Your task to perform on an android device: turn off location Image 0: 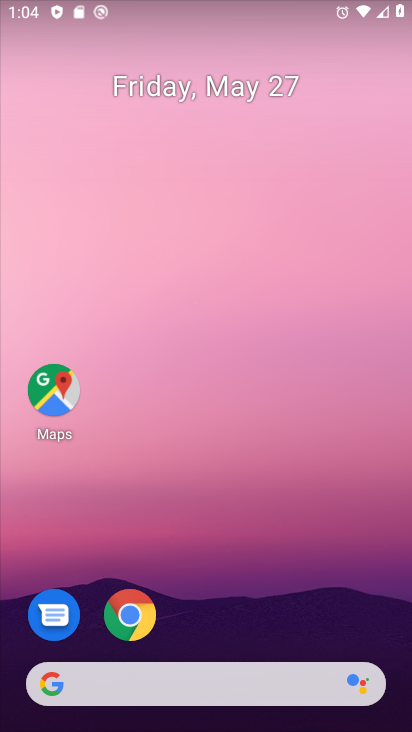
Step 0: press home button
Your task to perform on an android device: turn off location Image 1: 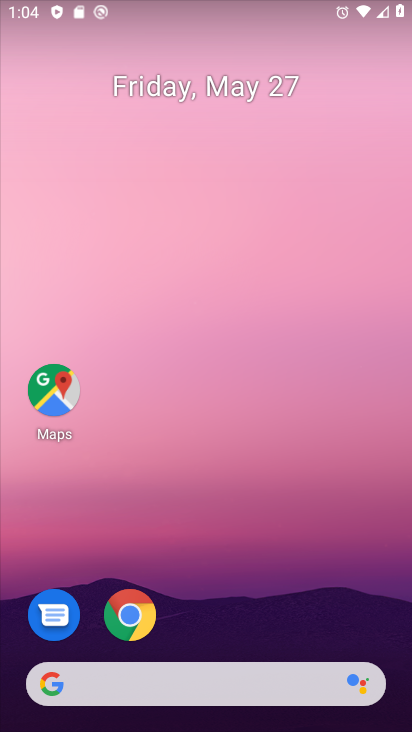
Step 1: drag from (252, 627) to (259, 72)
Your task to perform on an android device: turn off location Image 2: 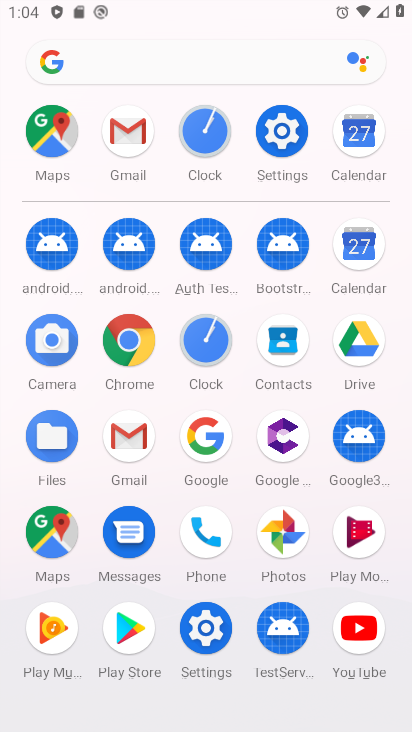
Step 2: click (277, 127)
Your task to perform on an android device: turn off location Image 3: 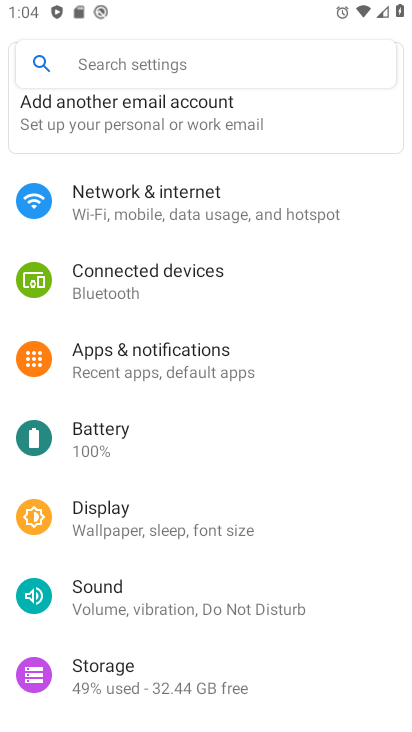
Step 3: drag from (223, 668) to (267, 117)
Your task to perform on an android device: turn off location Image 4: 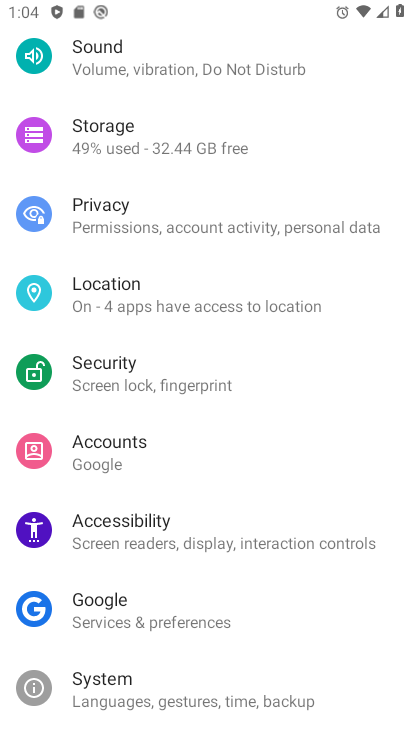
Step 4: click (114, 292)
Your task to perform on an android device: turn off location Image 5: 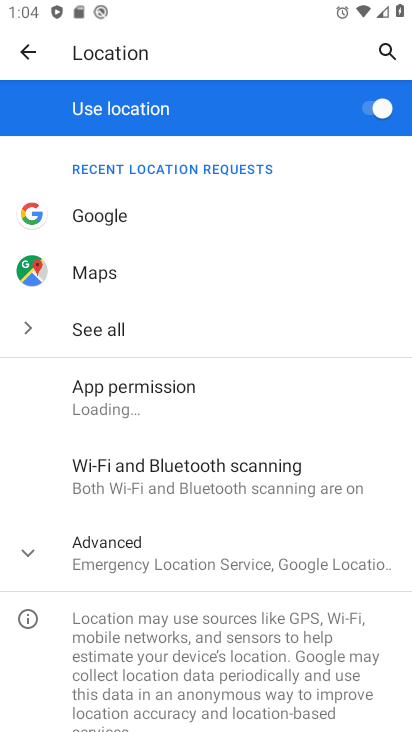
Step 5: click (108, 550)
Your task to perform on an android device: turn off location Image 6: 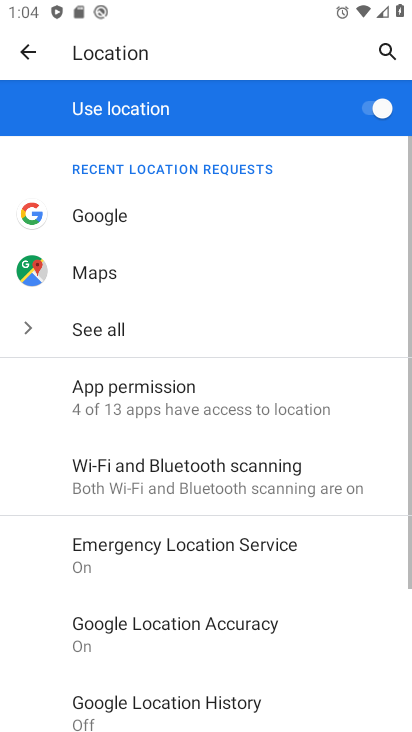
Step 6: drag from (255, 604) to (278, 198)
Your task to perform on an android device: turn off location Image 7: 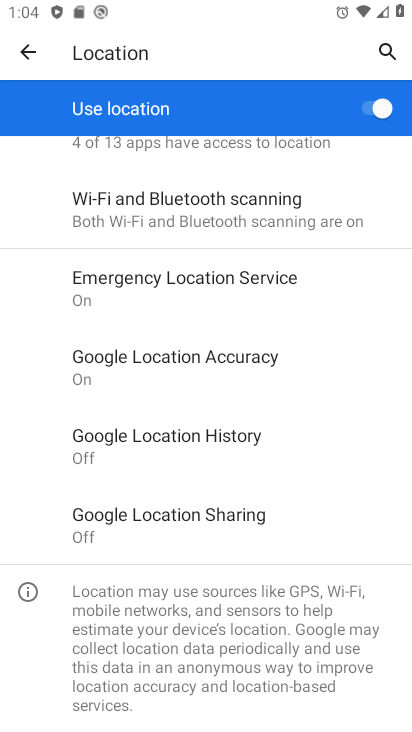
Step 7: click (378, 108)
Your task to perform on an android device: turn off location Image 8: 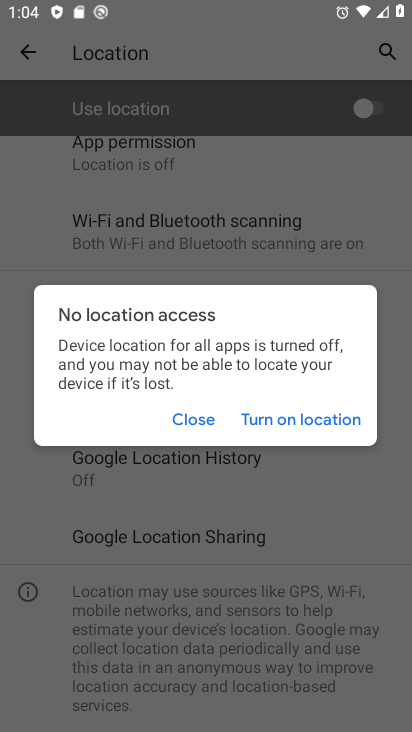
Step 8: task complete